Your task to perform on an android device: turn on the 12-hour format for clock Image 0: 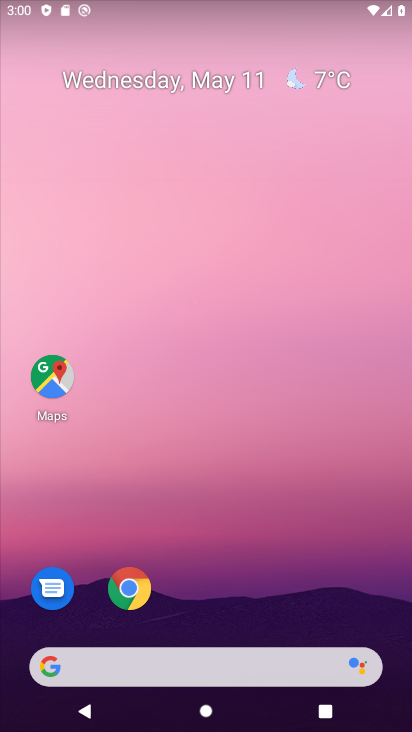
Step 0: drag from (204, 727) to (205, 27)
Your task to perform on an android device: turn on the 12-hour format for clock Image 1: 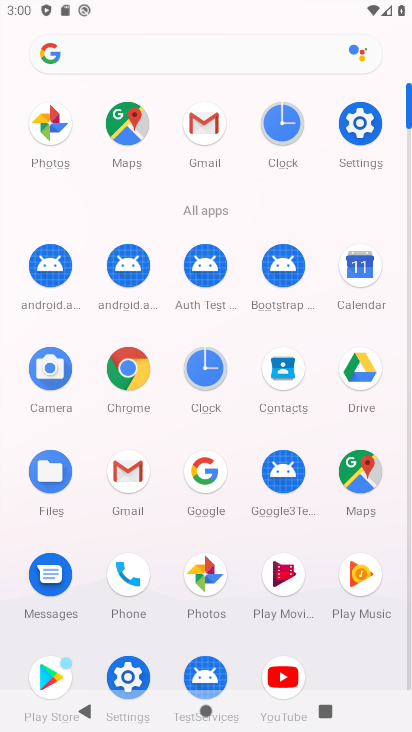
Step 1: click (204, 378)
Your task to perform on an android device: turn on the 12-hour format for clock Image 2: 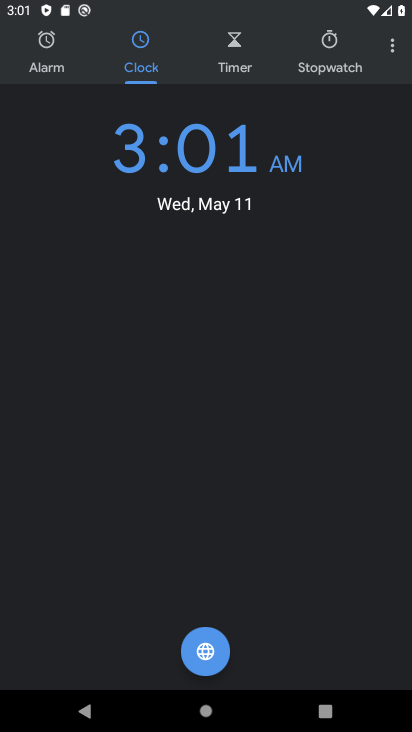
Step 2: click (395, 45)
Your task to perform on an android device: turn on the 12-hour format for clock Image 3: 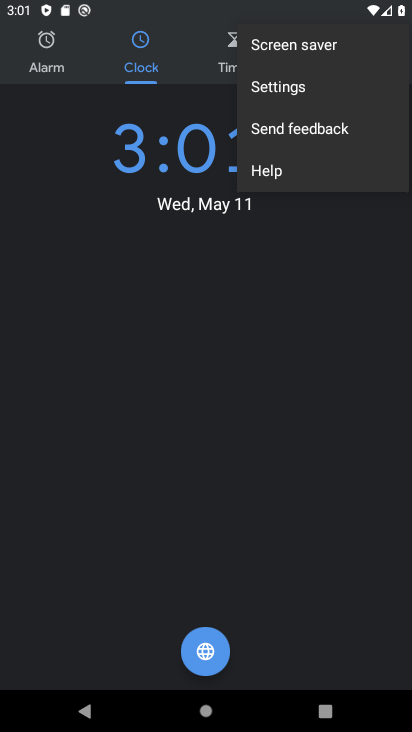
Step 3: click (305, 85)
Your task to perform on an android device: turn on the 12-hour format for clock Image 4: 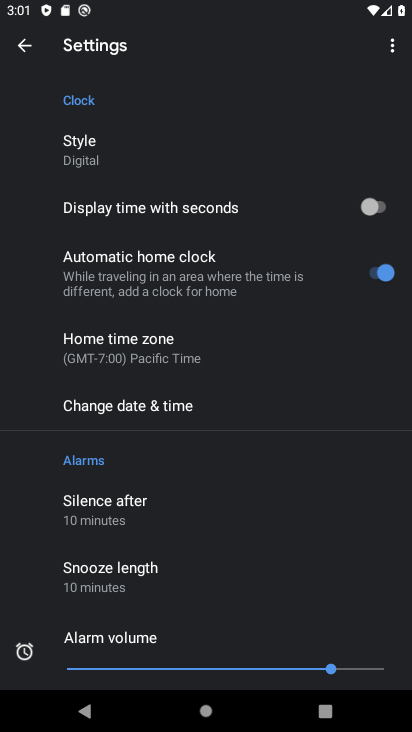
Step 4: click (144, 410)
Your task to perform on an android device: turn on the 12-hour format for clock Image 5: 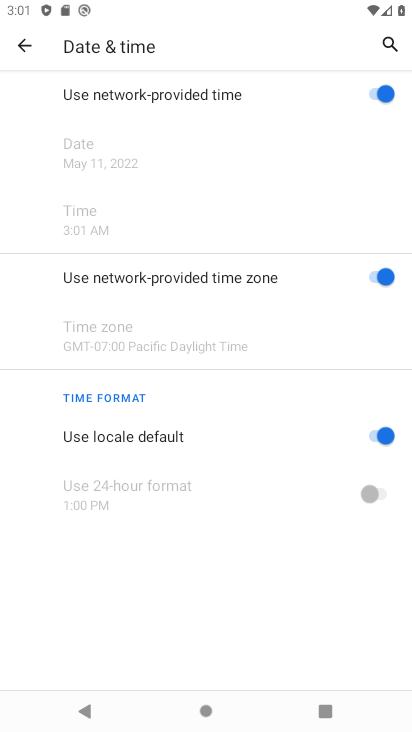
Step 5: task complete